Your task to perform on an android device: Open the map Image 0: 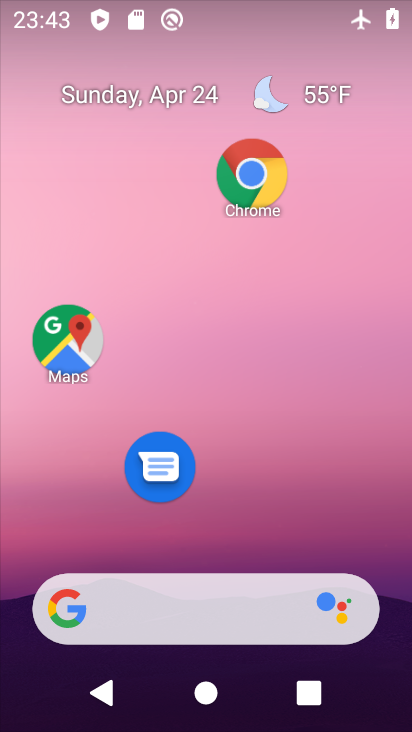
Step 0: click (64, 341)
Your task to perform on an android device: Open the map Image 1: 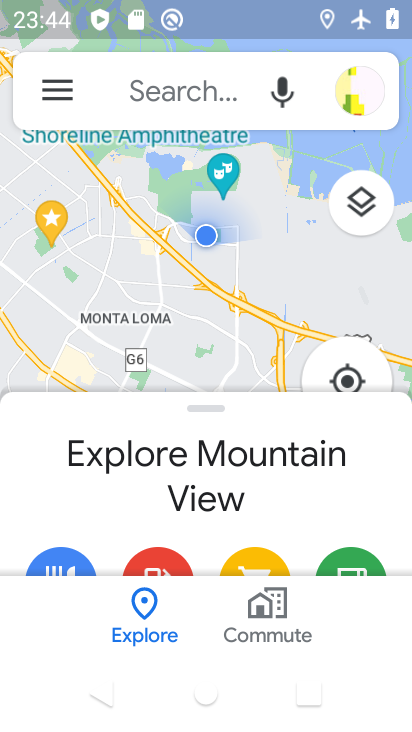
Step 1: task complete